Your task to perform on an android device: Is it going to rain this weekend? Image 0: 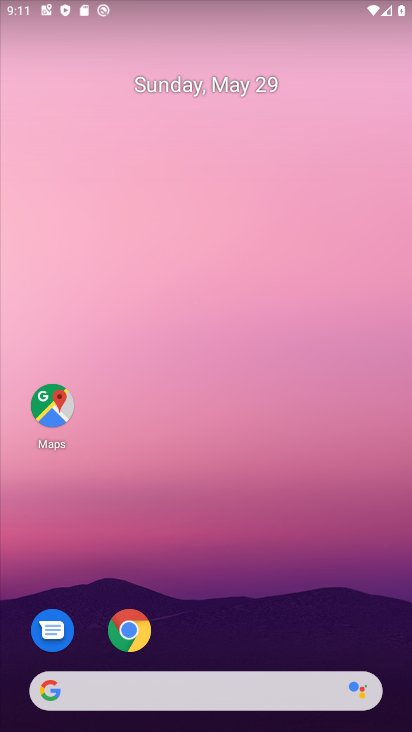
Step 0: drag from (11, 215) to (408, 249)
Your task to perform on an android device: Is it going to rain this weekend? Image 1: 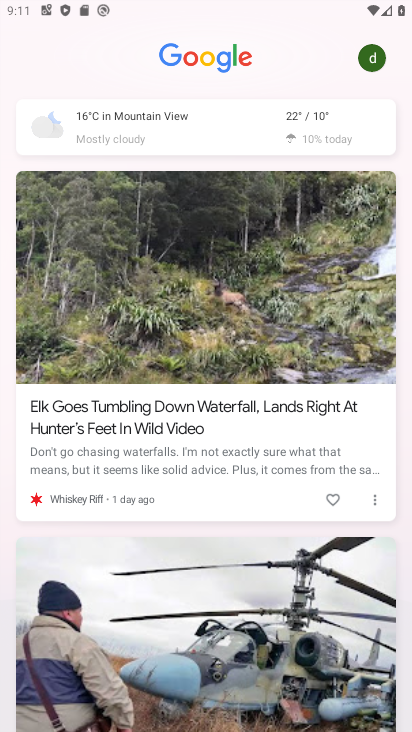
Step 1: click (313, 119)
Your task to perform on an android device: Is it going to rain this weekend? Image 2: 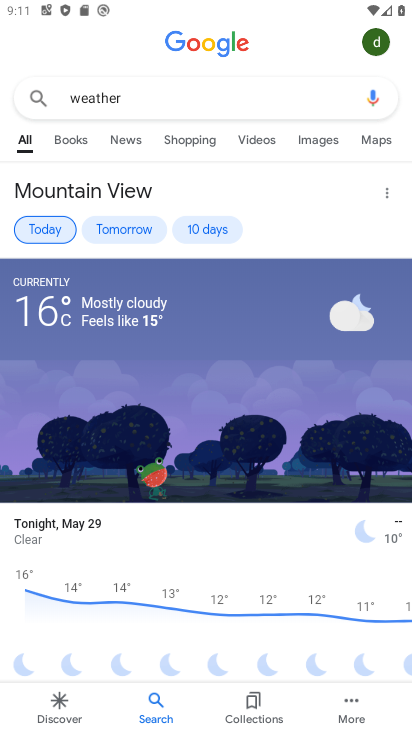
Step 2: drag from (204, 609) to (194, 297)
Your task to perform on an android device: Is it going to rain this weekend? Image 3: 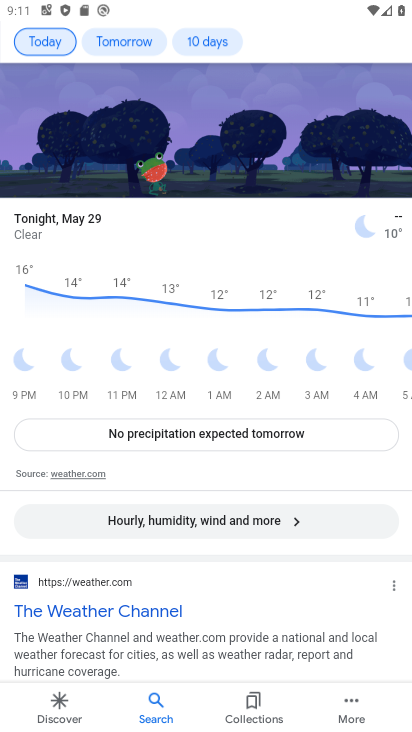
Step 3: drag from (245, 326) to (189, 548)
Your task to perform on an android device: Is it going to rain this weekend? Image 4: 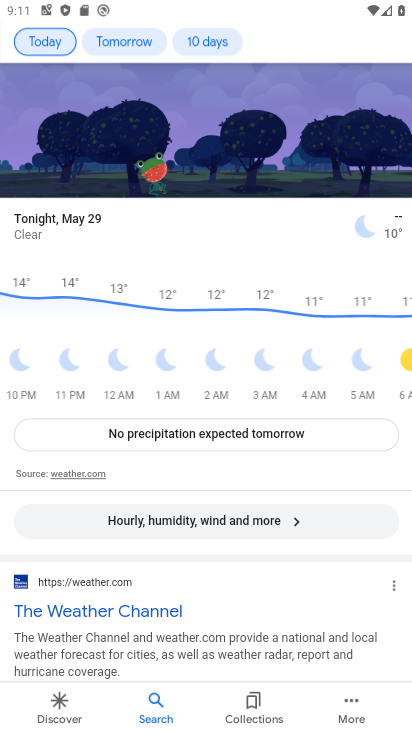
Step 4: click (202, 38)
Your task to perform on an android device: Is it going to rain this weekend? Image 5: 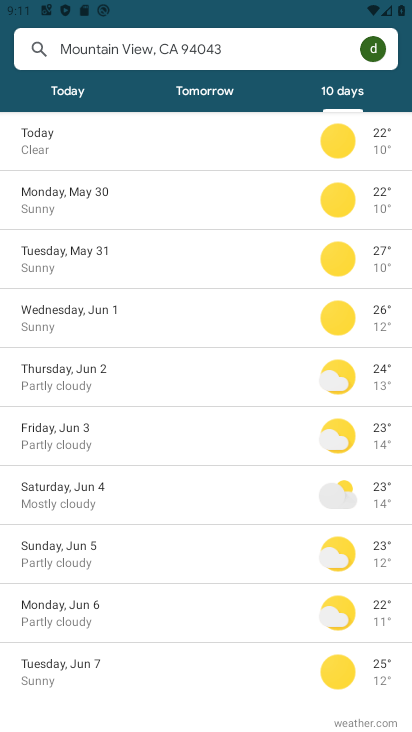
Step 5: click (250, 521)
Your task to perform on an android device: Is it going to rain this weekend? Image 6: 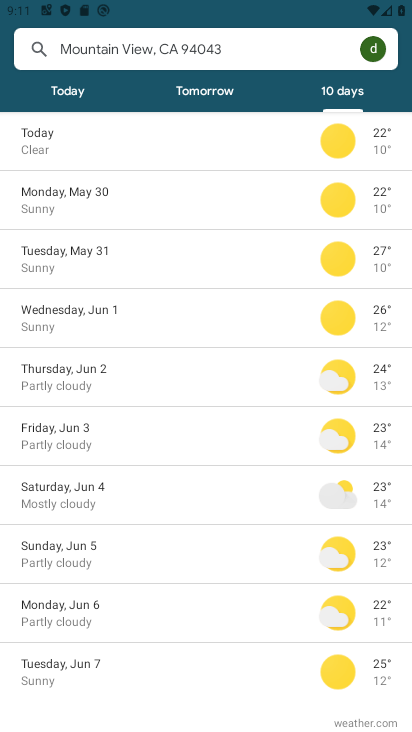
Step 6: task complete